Your task to perform on an android device: Clear all items from cart on amazon.com. Image 0: 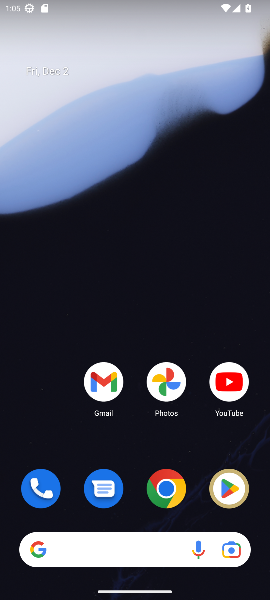
Step 0: drag from (111, 562) to (168, 200)
Your task to perform on an android device: Clear all items from cart on amazon.com. Image 1: 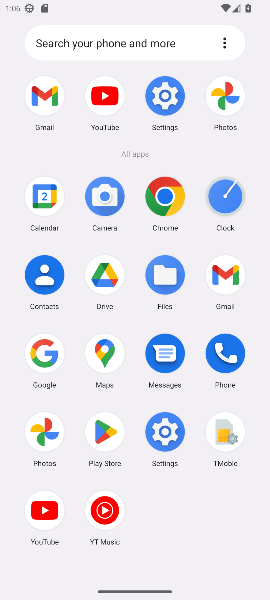
Step 1: click (50, 362)
Your task to perform on an android device: Clear all items from cart on amazon.com. Image 2: 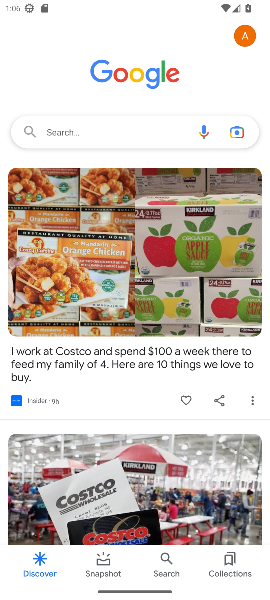
Step 2: click (68, 134)
Your task to perform on an android device: Clear all items from cart on amazon.com. Image 3: 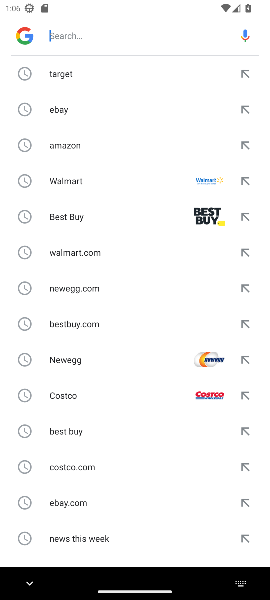
Step 3: type "amazon"
Your task to perform on an android device: Clear all items from cart on amazon.com. Image 4: 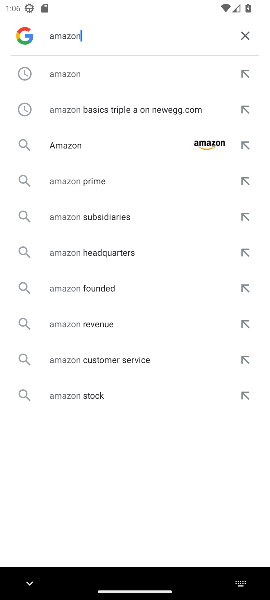
Step 4: click (198, 148)
Your task to perform on an android device: Clear all items from cart on amazon.com. Image 5: 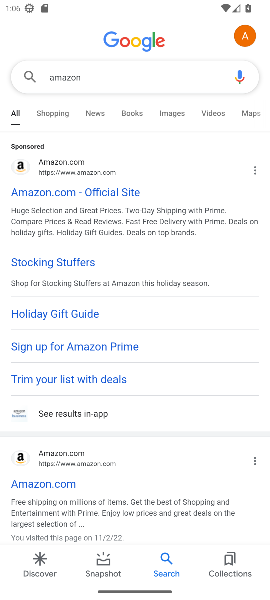
Step 5: click (74, 196)
Your task to perform on an android device: Clear all items from cart on amazon.com. Image 6: 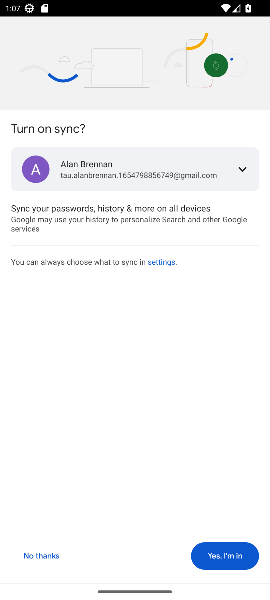
Step 6: click (223, 564)
Your task to perform on an android device: Clear all items from cart on amazon.com. Image 7: 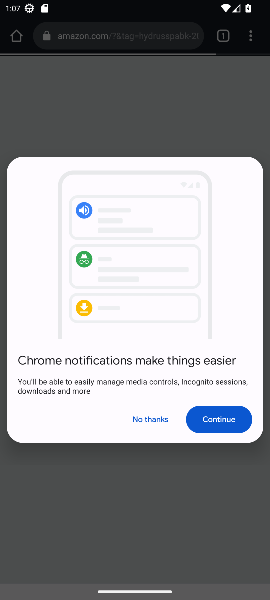
Step 7: click (147, 423)
Your task to perform on an android device: Clear all items from cart on amazon.com. Image 8: 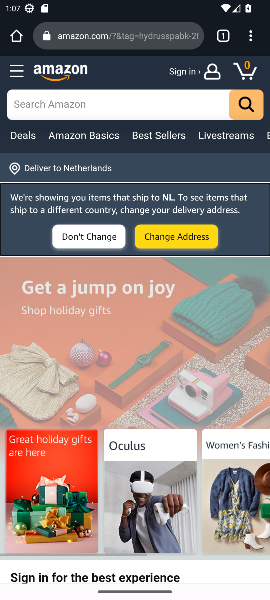
Step 8: task complete